Your task to perform on an android device: Empty the shopping cart on costco.com. Search for razer blade on costco.com, select the first entry, and add it to the cart. Image 0: 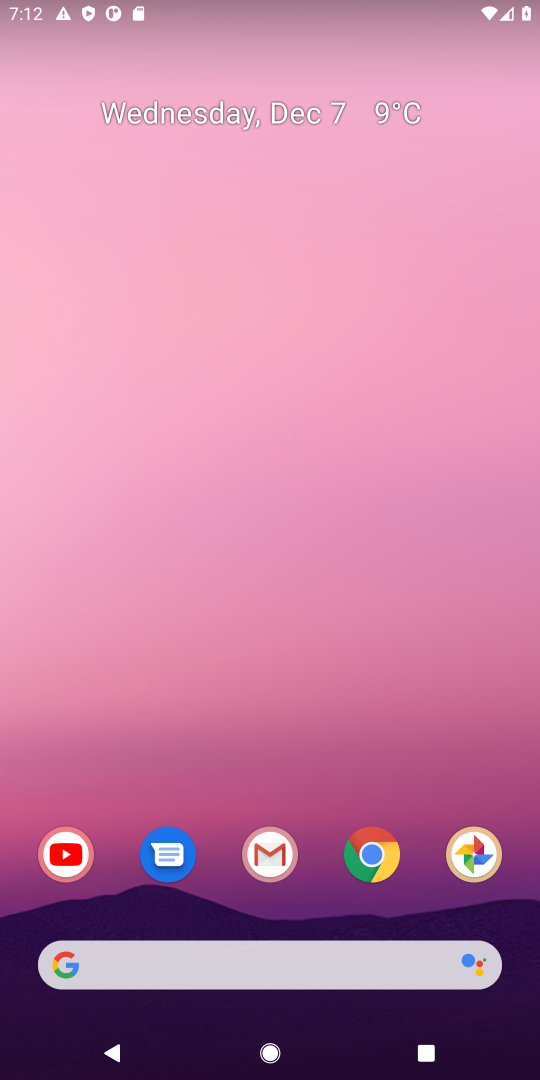
Step 0: click (369, 952)
Your task to perform on an android device: Empty the shopping cart on costco.com. Search for razer blade on costco.com, select the first entry, and add it to the cart. Image 1: 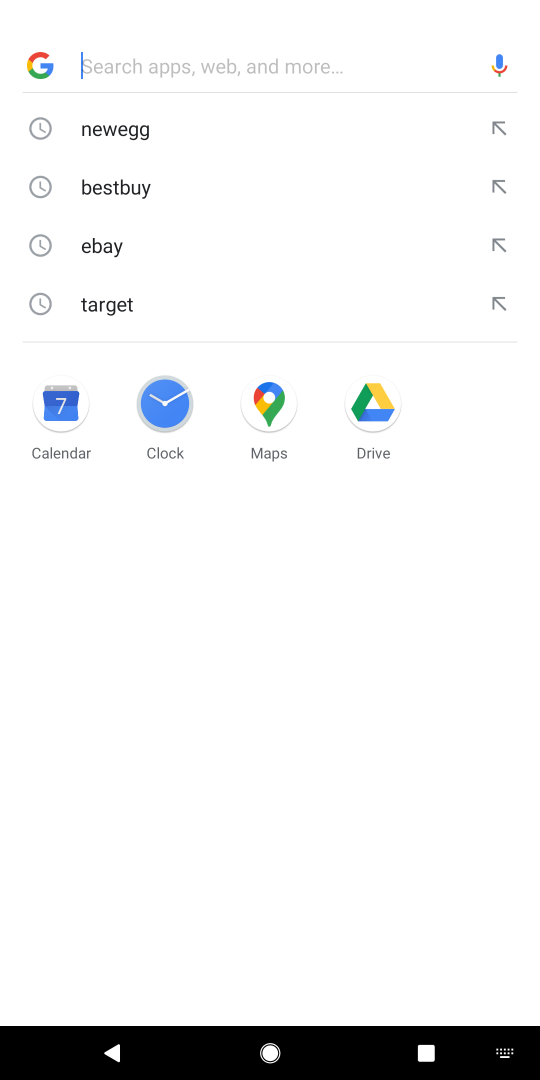
Step 1: type "costco.com"
Your task to perform on an android device: Empty the shopping cart on costco.com. Search for razer blade on costco.com, select the first entry, and add it to the cart. Image 2: 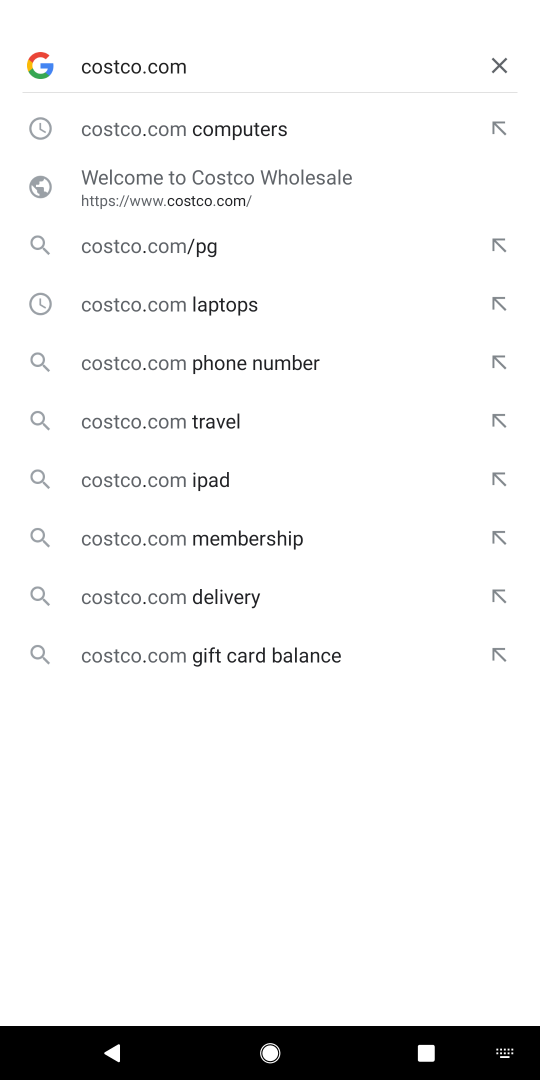
Step 2: click (229, 186)
Your task to perform on an android device: Empty the shopping cart on costco.com. Search for razer blade on costco.com, select the first entry, and add it to the cart. Image 3: 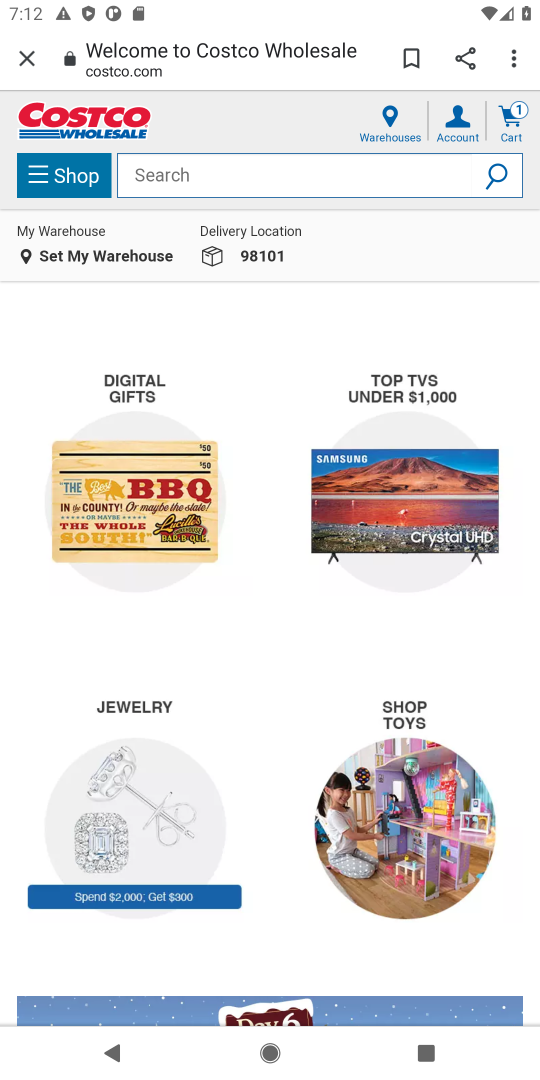
Step 3: click (207, 170)
Your task to perform on an android device: Empty the shopping cart on costco.com. Search for razer blade on costco.com, select the first entry, and add it to the cart. Image 4: 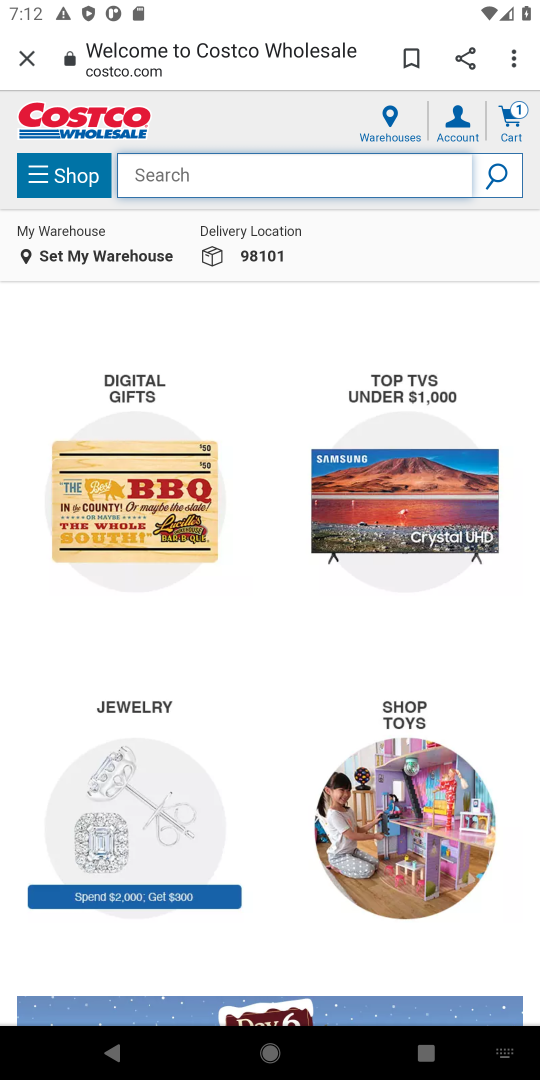
Step 4: type "razer blade"
Your task to perform on an android device: Empty the shopping cart on costco.com. Search for razer blade on costco.com, select the first entry, and add it to the cart. Image 5: 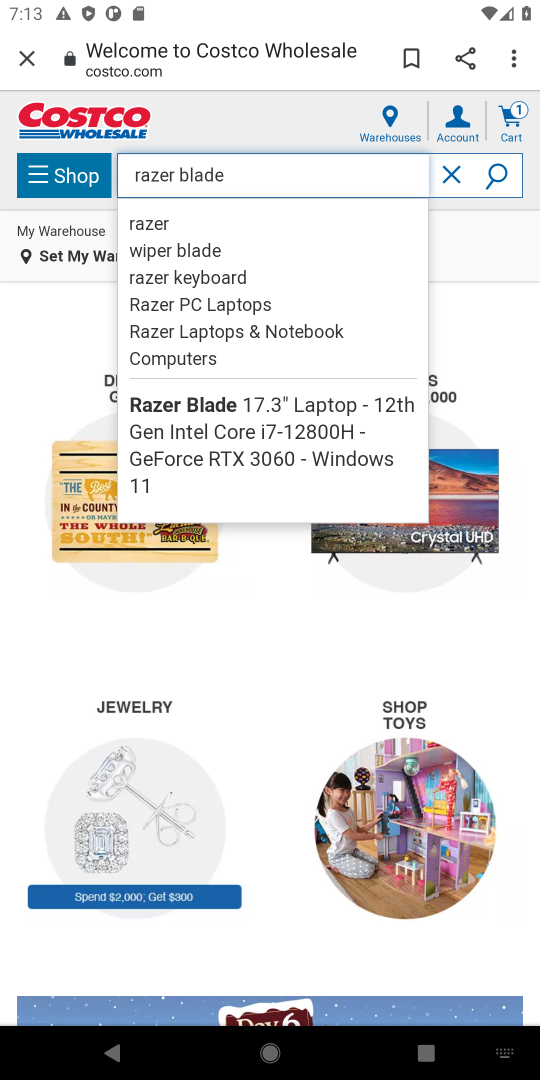
Step 5: click (506, 160)
Your task to perform on an android device: Empty the shopping cart on costco.com. Search for razer blade on costco.com, select the first entry, and add it to the cart. Image 6: 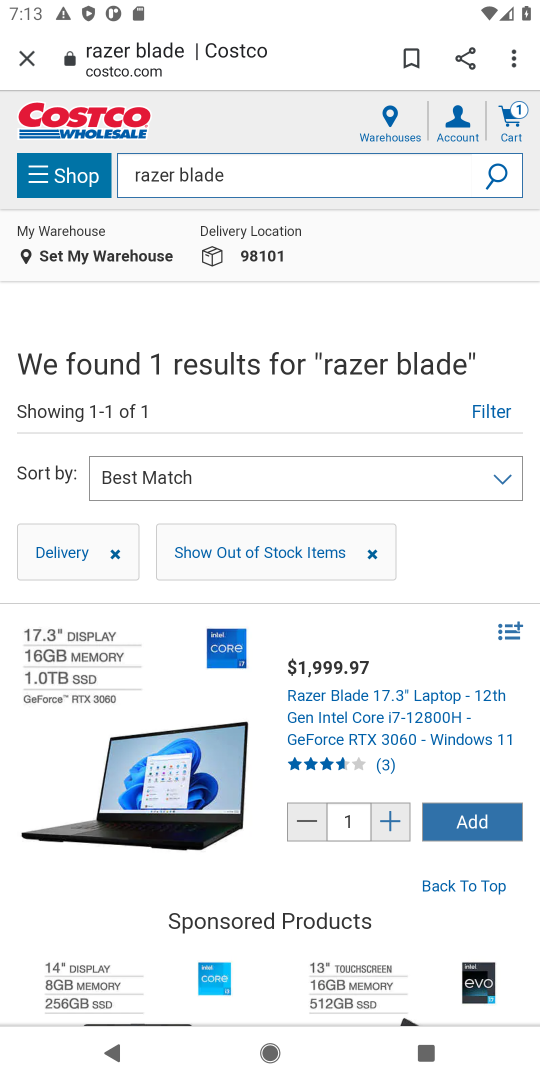
Step 6: click (443, 820)
Your task to perform on an android device: Empty the shopping cart on costco.com. Search for razer blade on costco.com, select the first entry, and add it to the cart. Image 7: 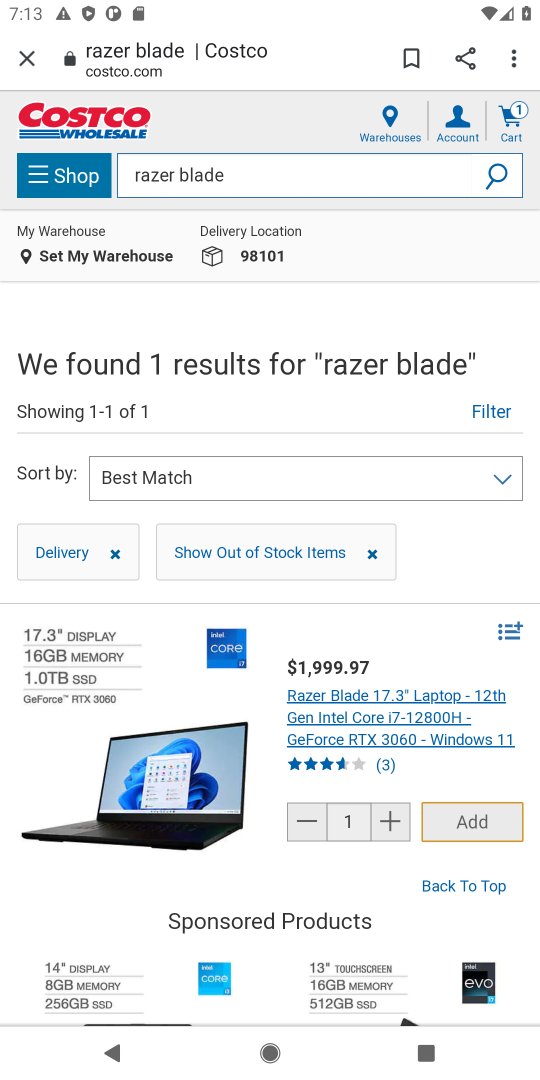
Step 7: task complete